Your task to perform on an android device: Open battery settings Image 0: 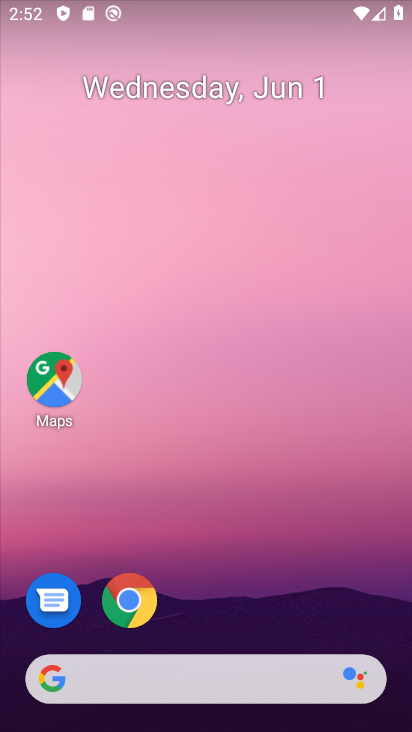
Step 0: drag from (211, 633) to (300, 188)
Your task to perform on an android device: Open battery settings Image 1: 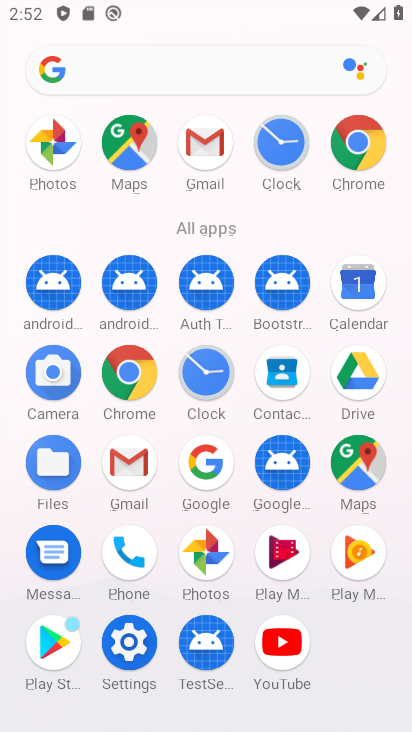
Step 1: click (134, 658)
Your task to perform on an android device: Open battery settings Image 2: 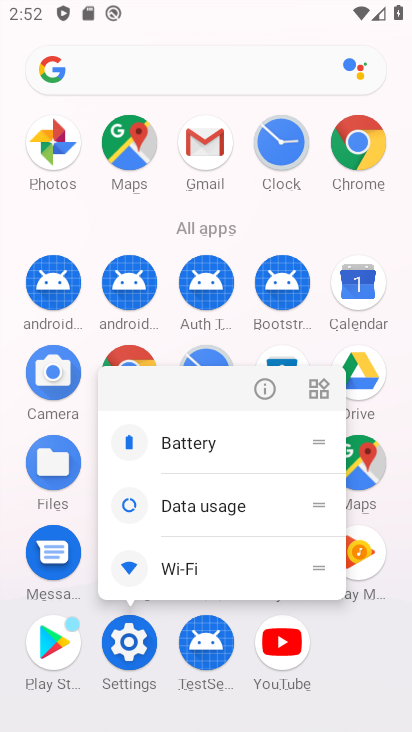
Step 2: click (132, 652)
Your task to perform on an android device: Open battery settings Image 3: 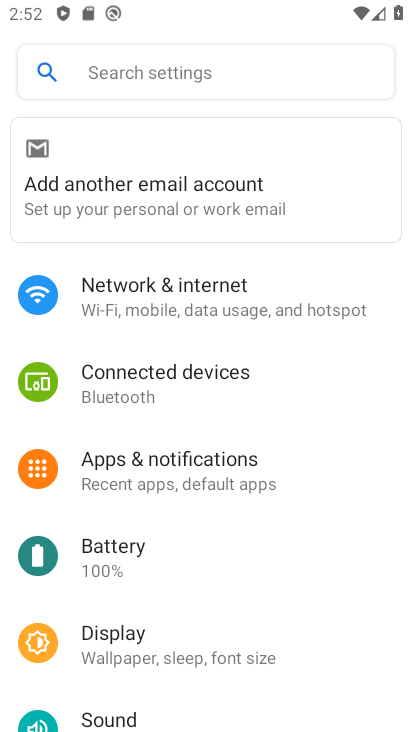
Step 3: click (156, 554)
Your task to perform on an android device: Open battery settings Image 4: 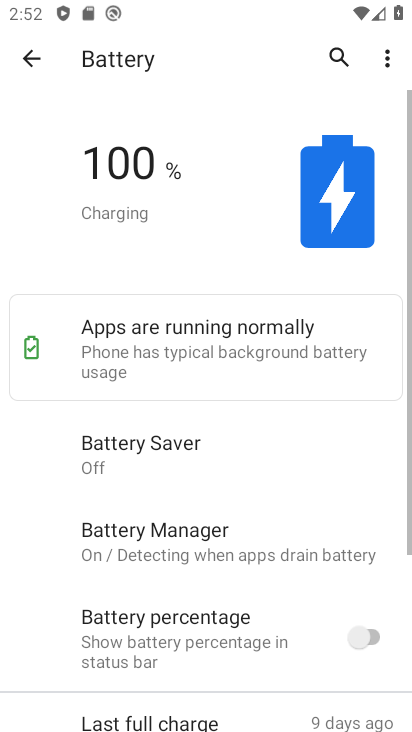
Step 4: task complete